Your task to perform on an android device: Open accessibility settings Image 0: 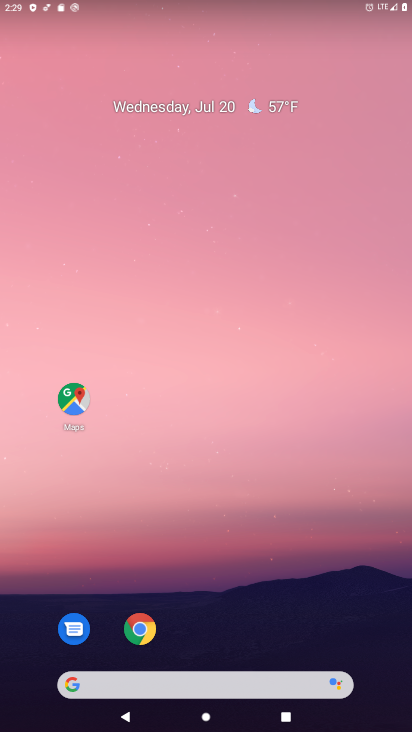
Step 0: drag from (388, 673) to (320, 42)
Your task to perform on an android device: Open accessibility settings Image 1: 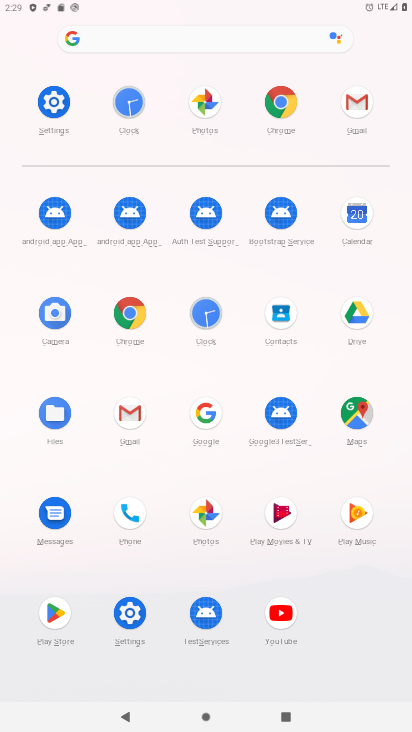
Step 1: click (127, 608)
Your task to perform on an android device: Open accessibility settings Image 2: 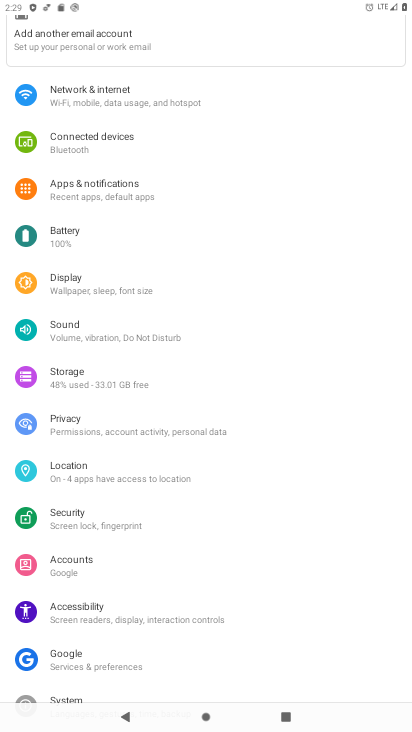
Step 2: click (64, 617)
Your task to perform on an android device: Open accessibility settings Image 3: 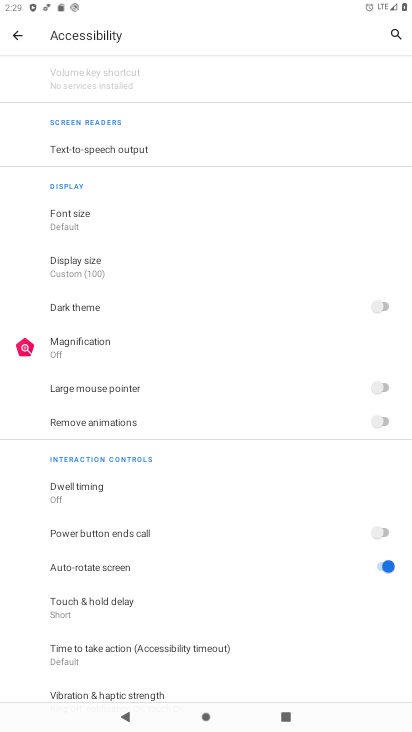
Step 3: task complete